Your task to perform on an android device: View the shopping cart on costco.com. Search for dell xps on costco.com, select the first entry, add it to the cart, then select checkout. Image 0: 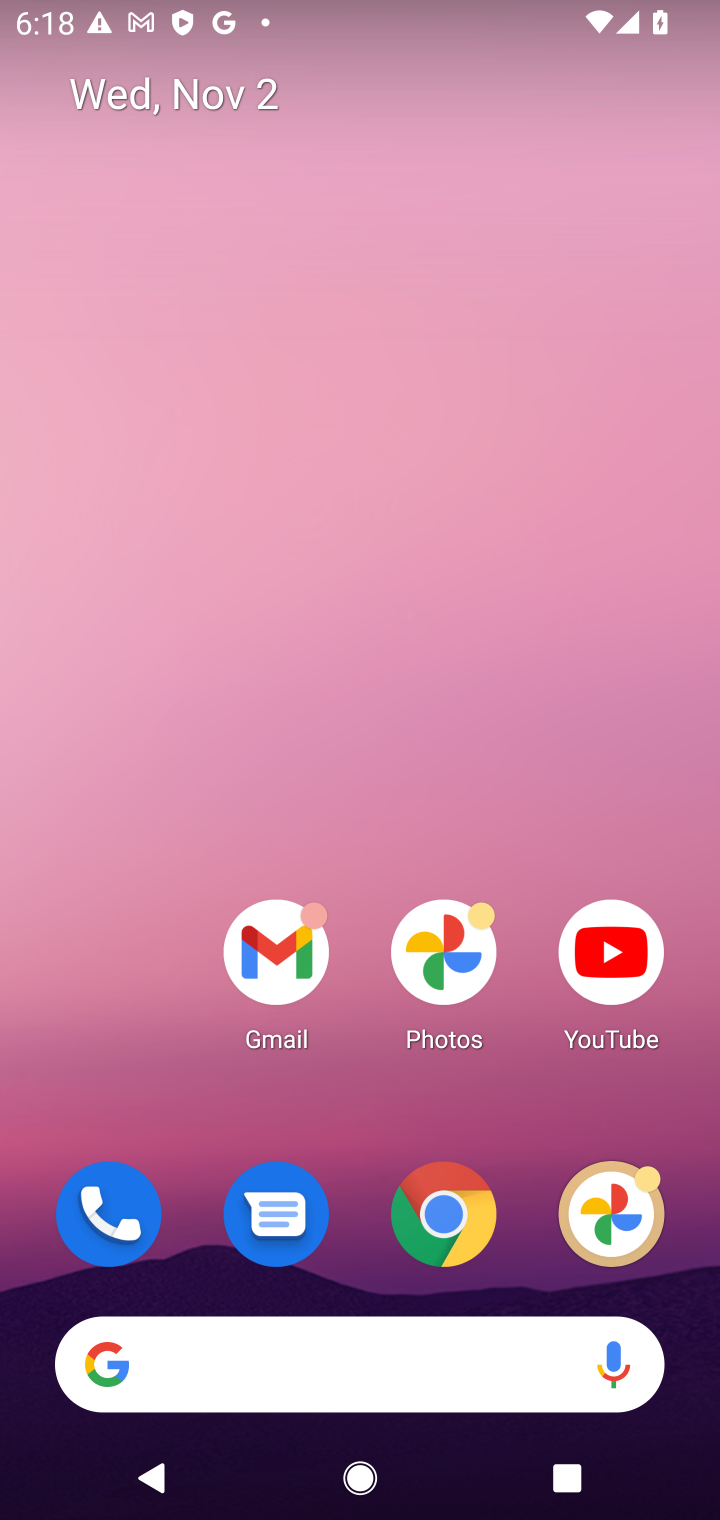
Step 0: click (452, 1214)
Your task to perform on an android device: View the shopping cart on costco.com. Search for dell xps on costco.com, select the first entry, add it to the cart, then select checkout. Image 1: 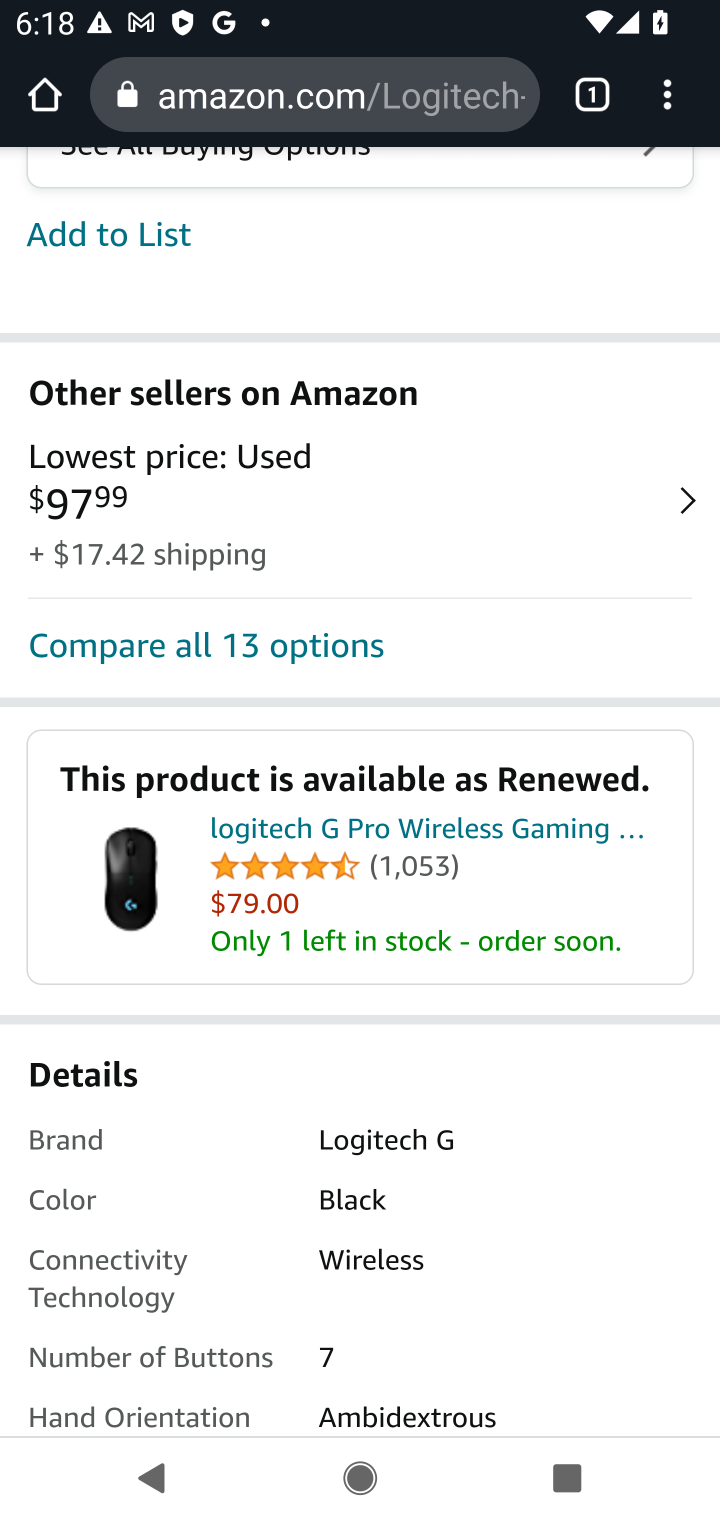
Step 1: click (430, 92)
Your task to perform on an android device: View the shopping cart on costco.com. Search for dell xps on costco.com, select the first entry, add it to the cart, then select checkout. Image 2: 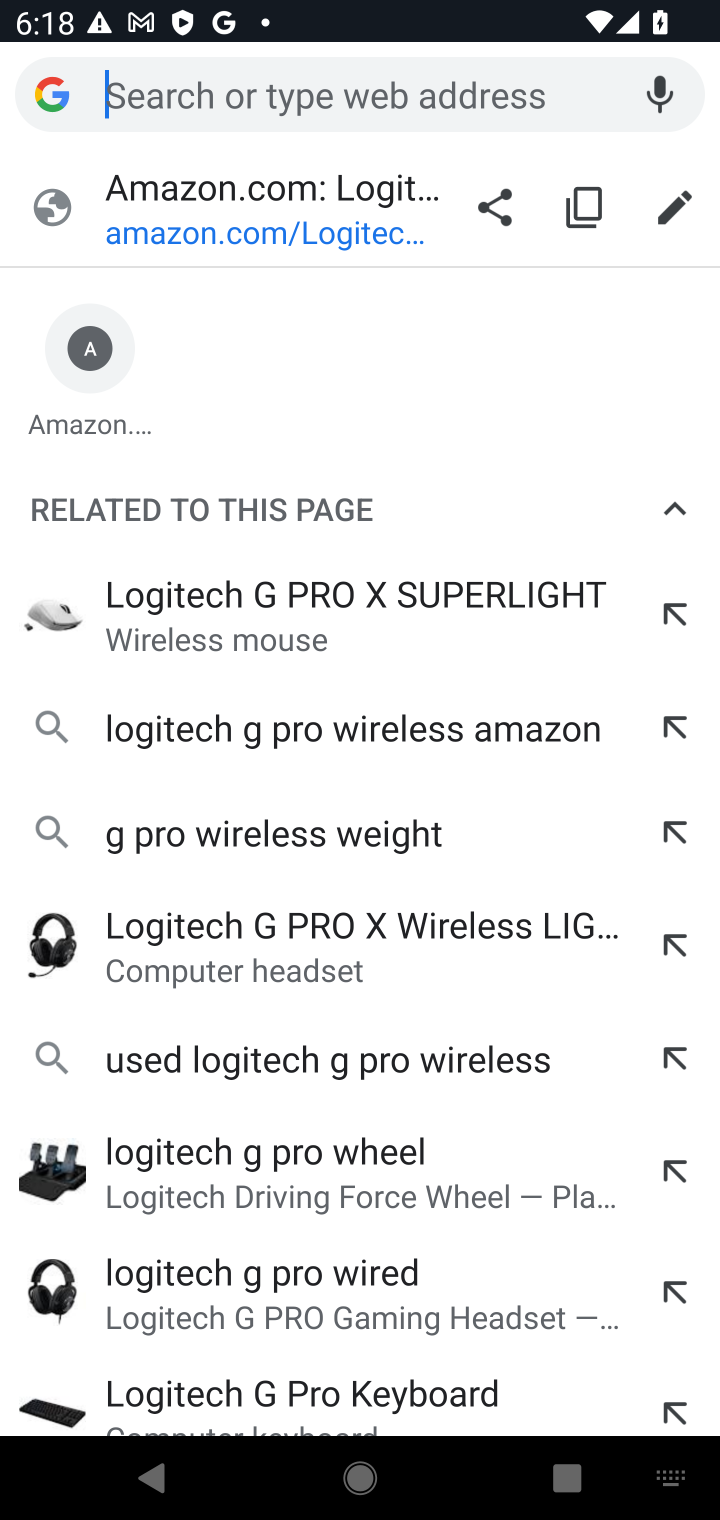
Step 2: type "costco.com"
Your task to perform on an android device: View the shopping cart on costco.com. Search for dell xps on costco.com, select the first entry, add it to the cart, then select checkout. Image 3: 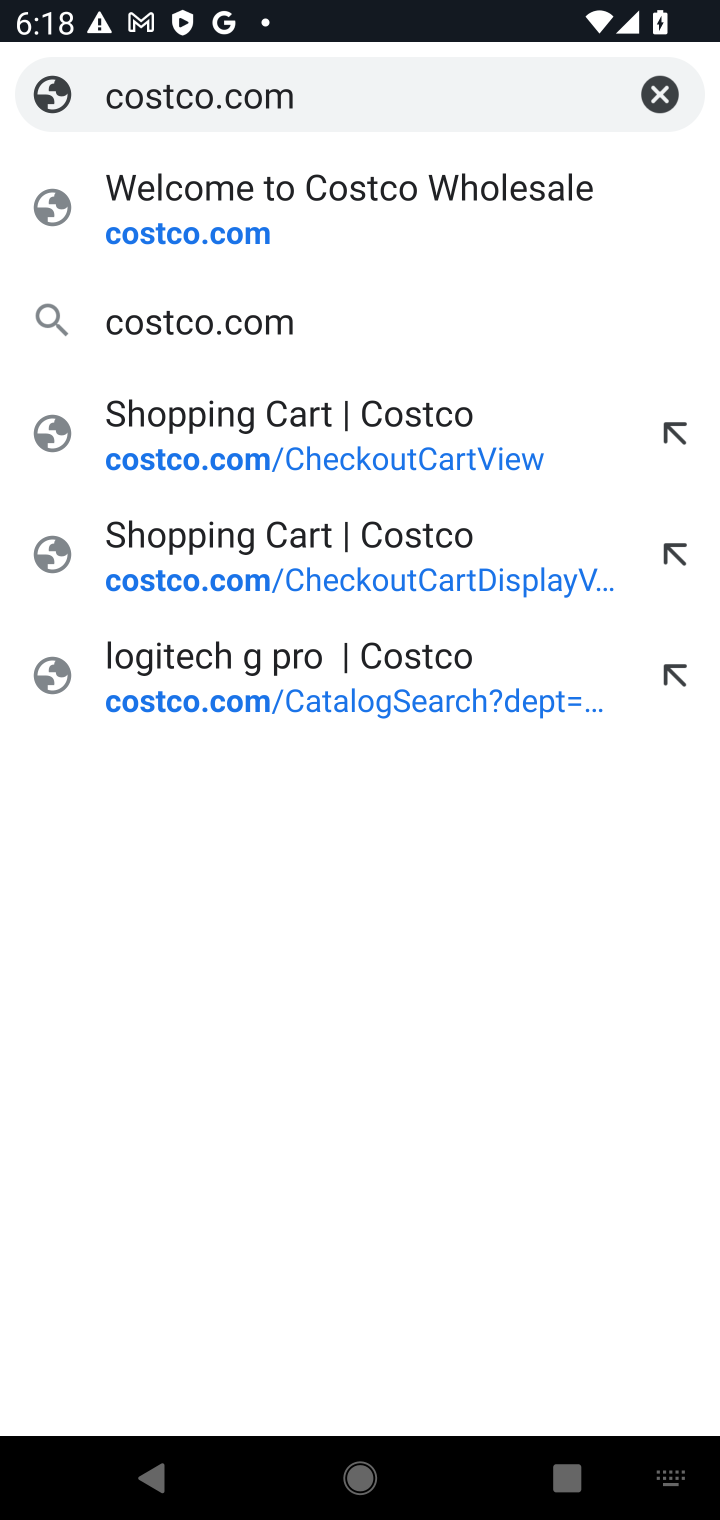
Step 3: click (259, 321)
Your task to perform on an android device: View the shopping cart on costco.com. Search for dell xps on costco.com, select the first entry, add it to the cart, then select checkout. Image 4: 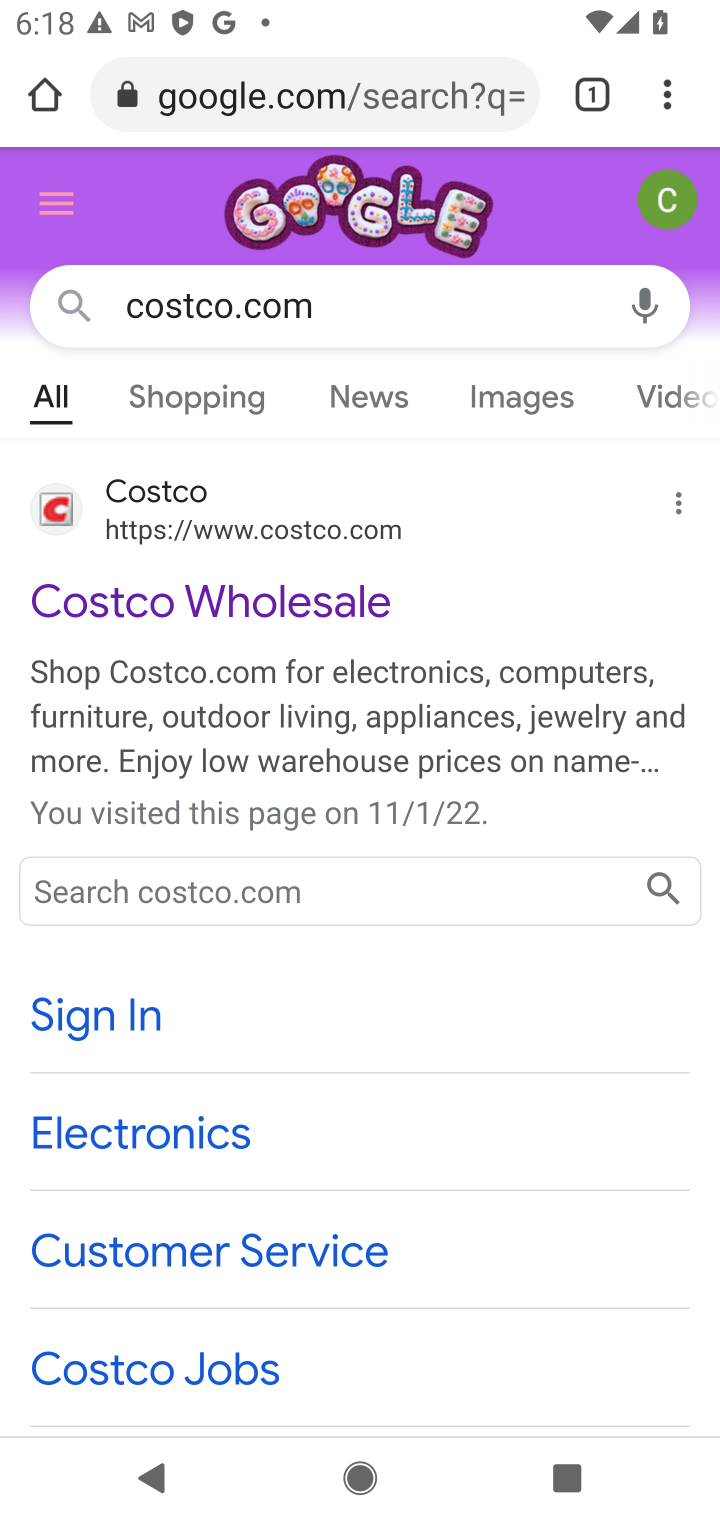
Step 4: click (321, 599)
Your task to perform on an android device: View the shopping cart on costco.com. Search for dell xps on costco.com, select the first entry, add it to the cart, then select checkout. Image 5: 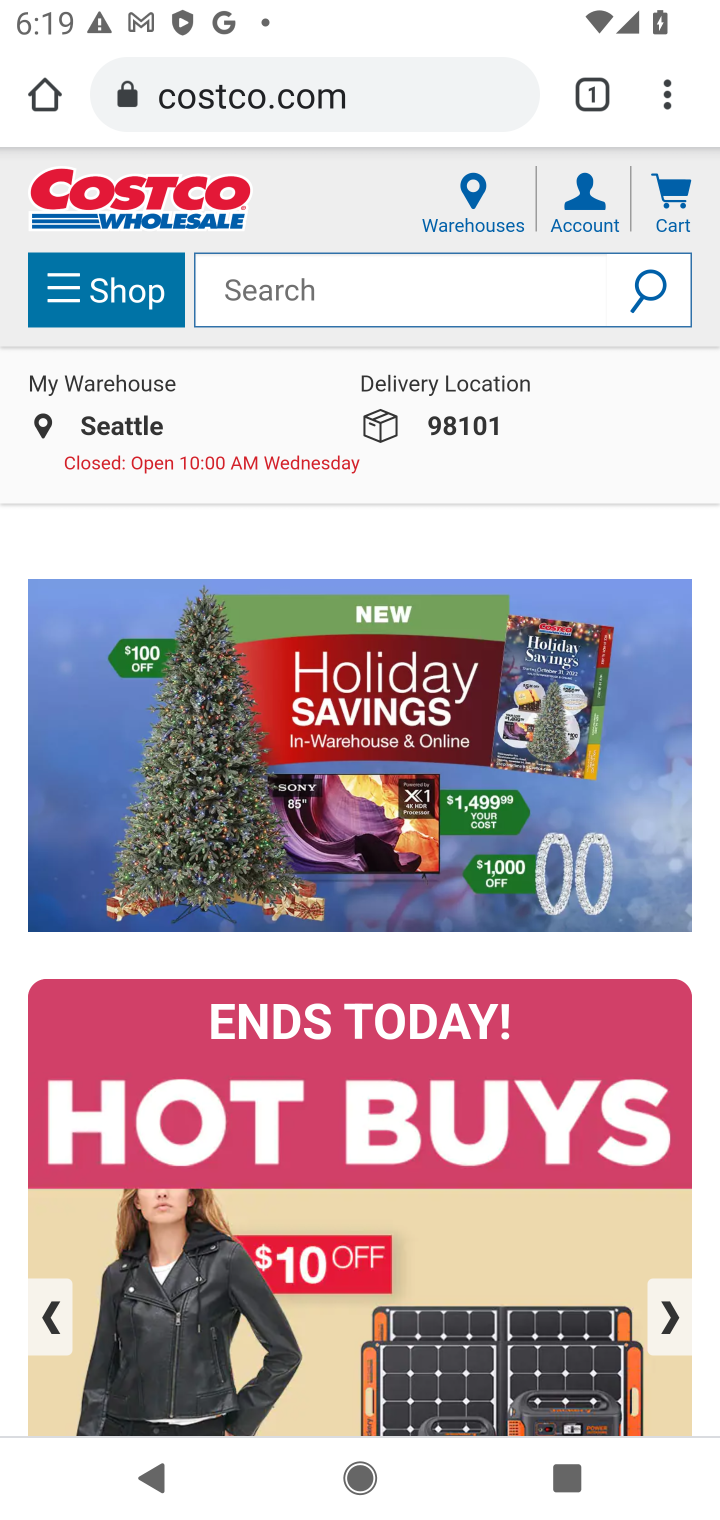
Step 5: click (674, 185)
Your task to perform on an android device: View the shopping cart on costco.com. Search for dell xps on costco.com, select the first entry, add it to the cart, then select checkout. Image 6: 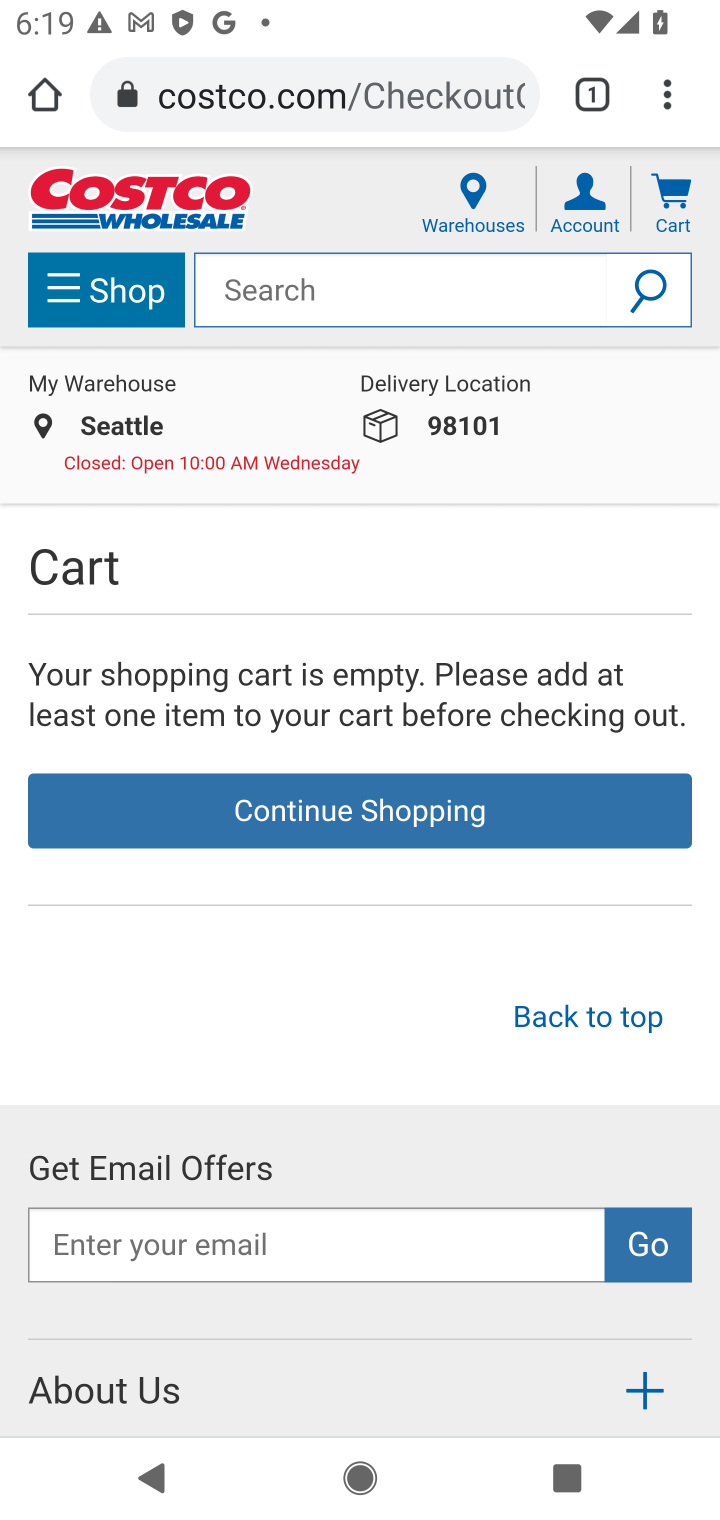
Step 6: click (476, 300)
Your task to perform on an android device: View the shopping cart on costco.com. Search for dell xps on costco.com, select the first entry, add it to the cart, then select checkout. Image 7: 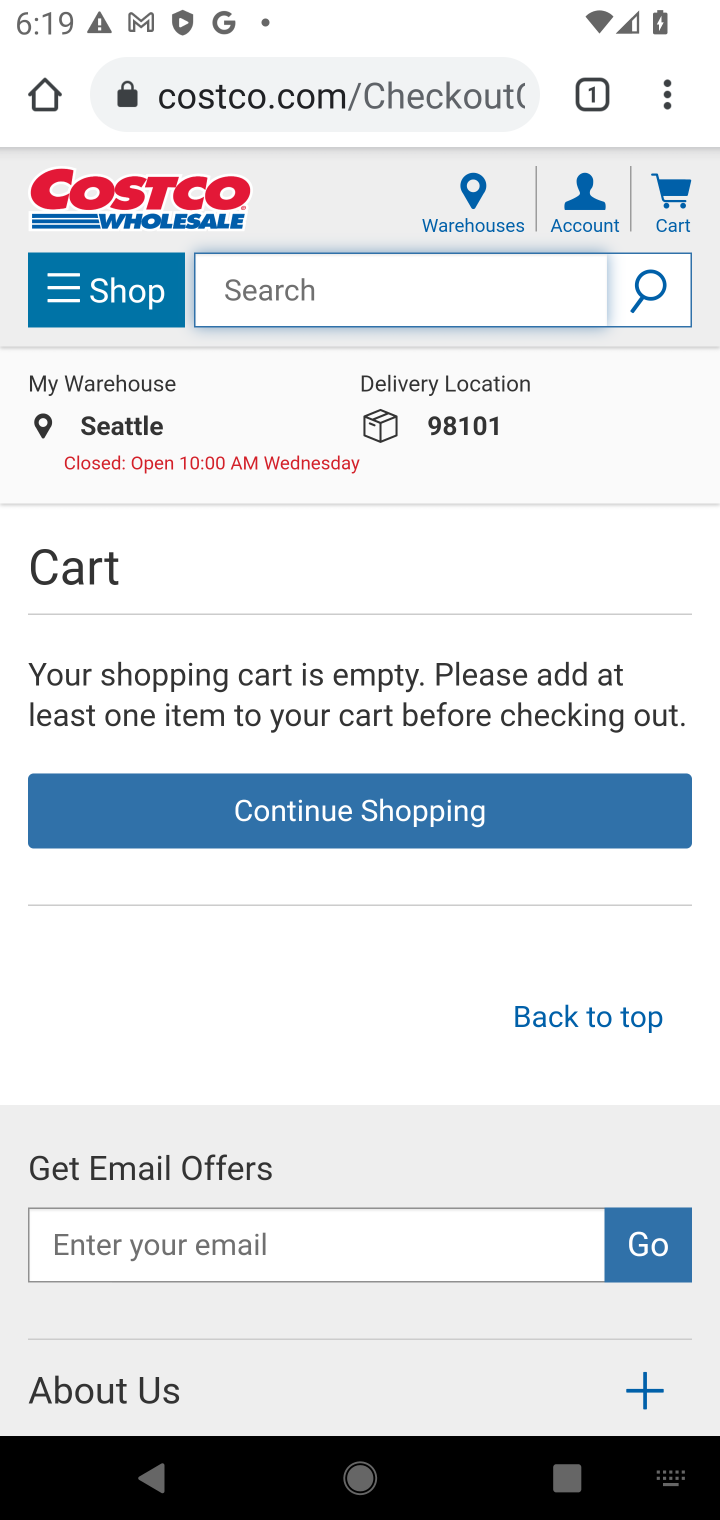
Step 7: type "dell xps"
Your task to perform on an android device: View the shopping cart on costco.com. Search for dell xps on costco.com, select the first entry, add it to the cart, then select checkout. Image 8: 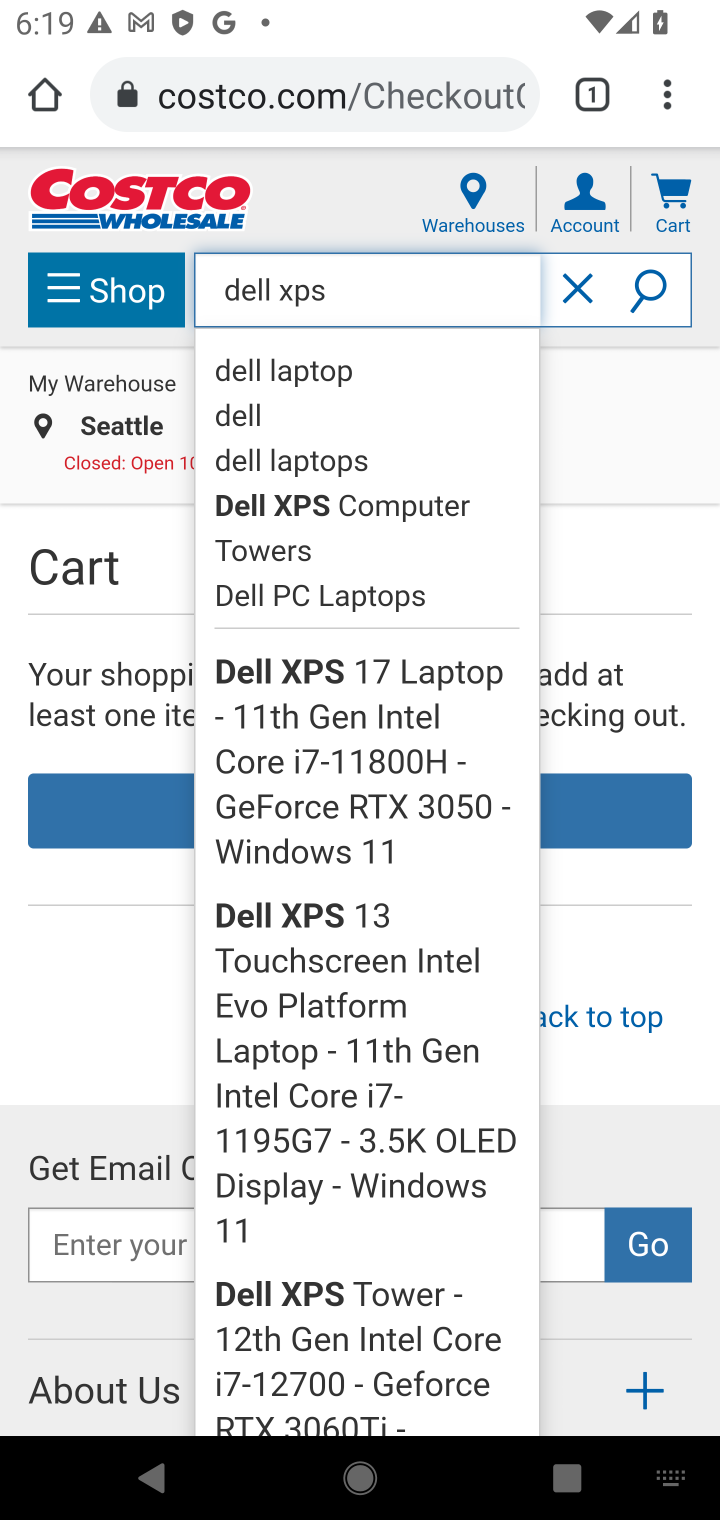
Step 8: click (649, 281)
Your task to perform on an android device: View the shopping cart on costco.com. Search for dell xps on costco.com, select the first entry, add it to the cart, then select checkout. Image 9: 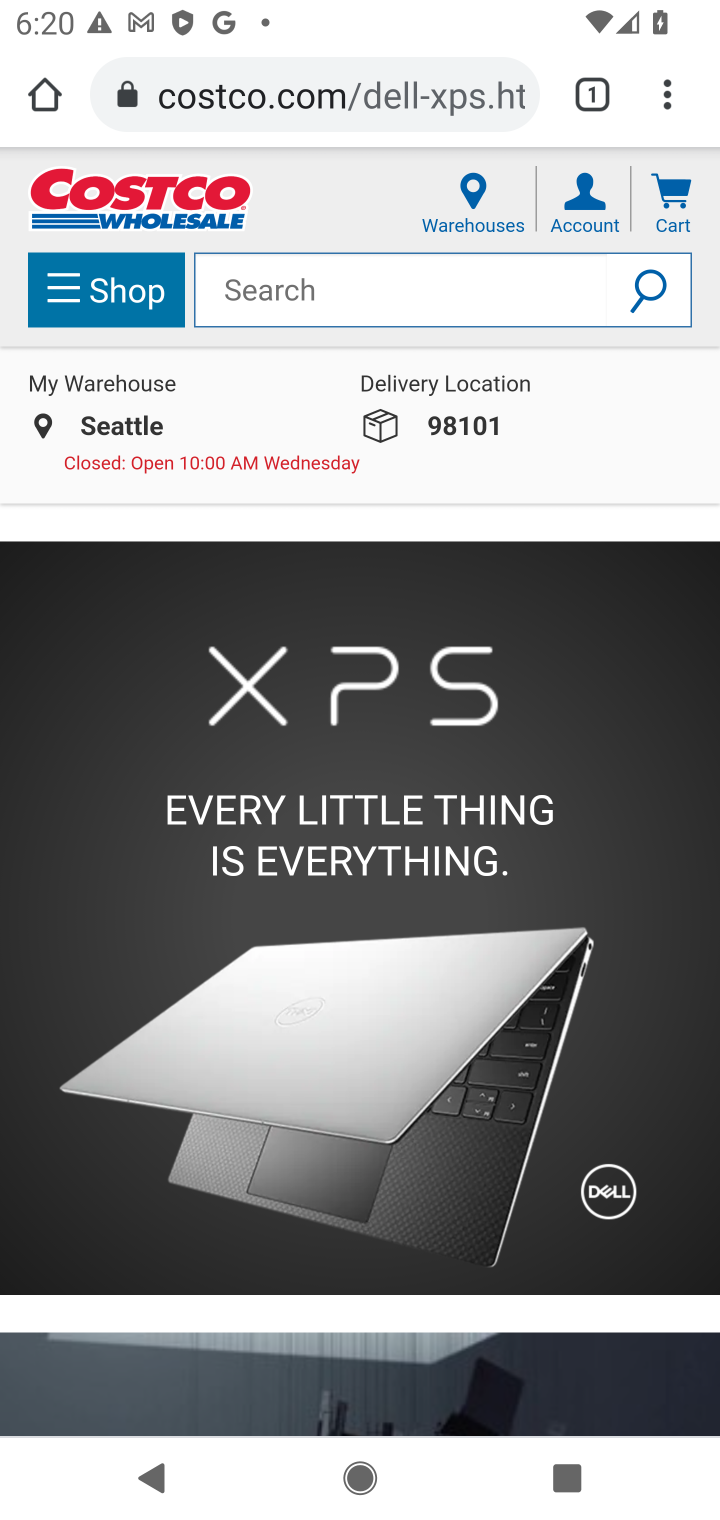
Step 9: drag from (591, 888) to (689, 313)
Your task to perform on an android device: View the shopping cart on costco.com. Search for dell xps on costco.com, select the first entry, add it to the cart, then select checkout. Image 10: 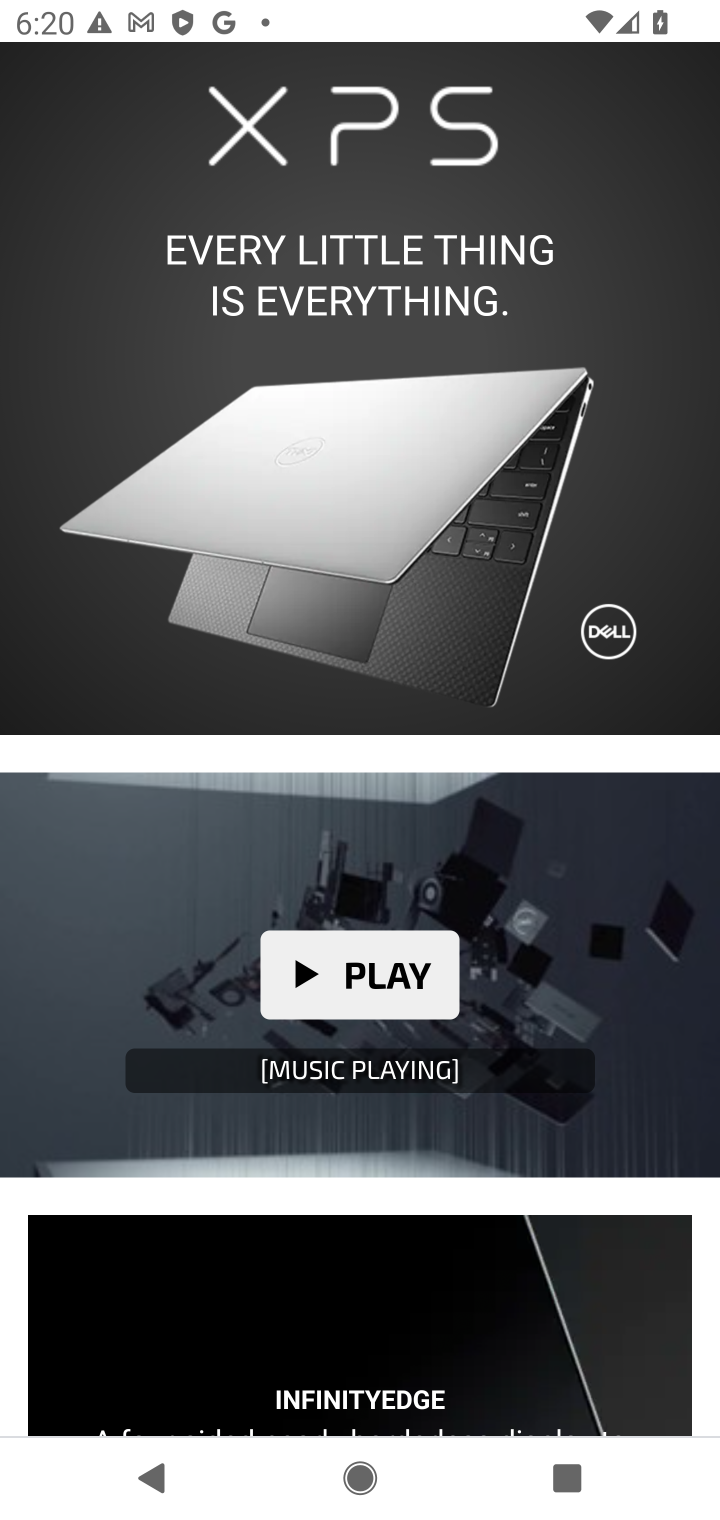
Step 10: drag from (363, 924) to (415, 175)
Your task to perform on an android device: View the shopping cart on costco.com. Search for dell xps on costco.com, select the first entry, add it to the cart, then select checkout. Image 11: 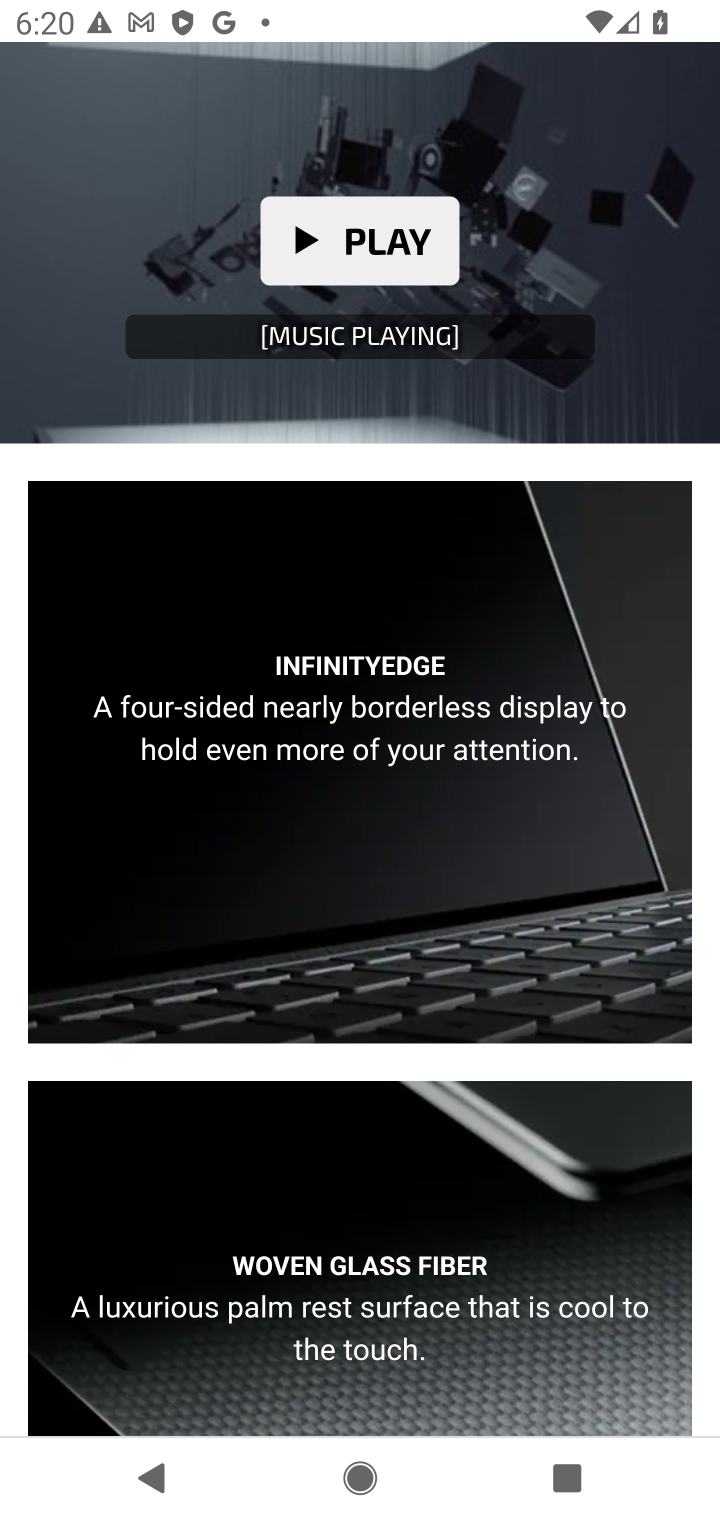
Step 11: drag from (404, 1025) to (398, 167)
Your task to perform on an android device: View the shopping cart on costco.com. Search for dell xps on costco.com, select the first entry, add it to the cart, then select checkout. Image 12: 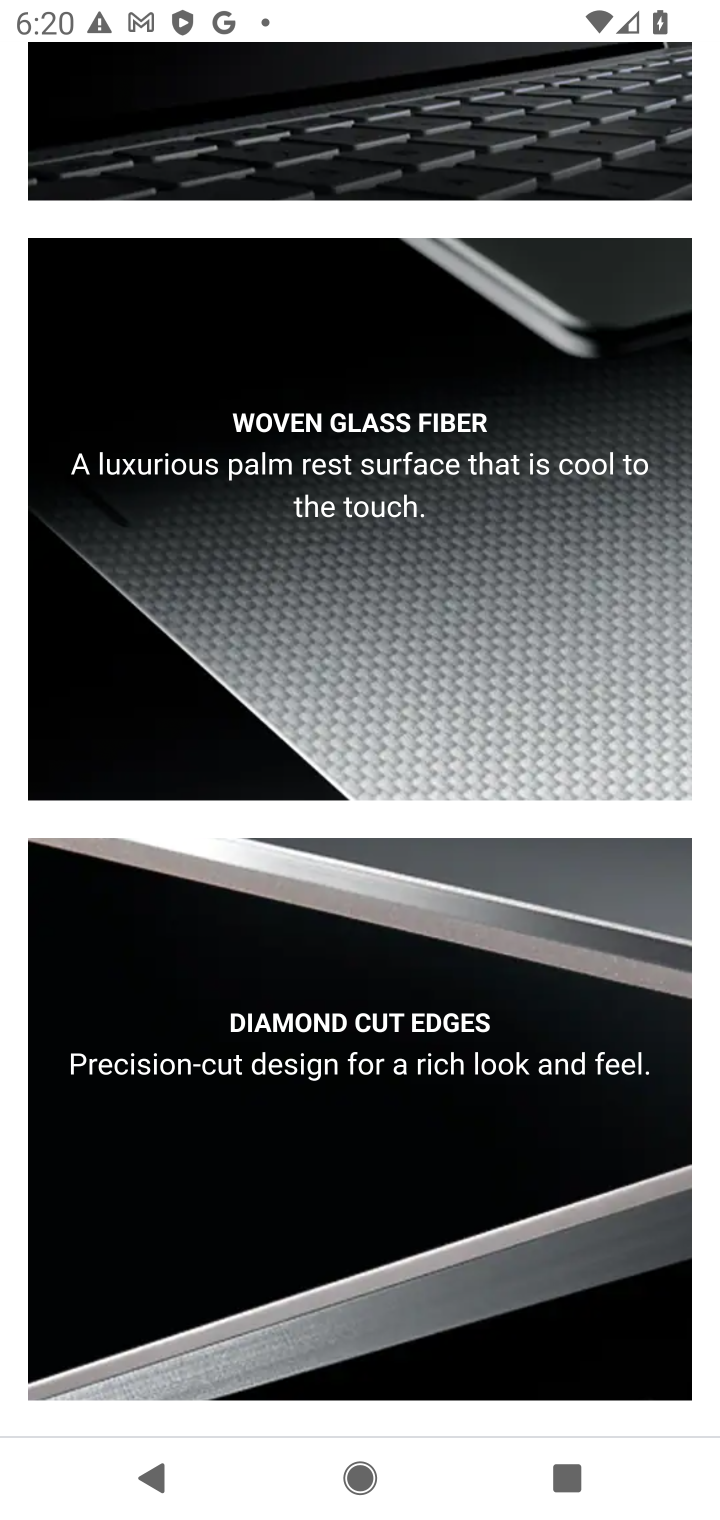
Step 12: drag from (462, 1285) to (522, 409)
Your task to perform on an android device: View the shopping cart on costco.com. Search for dell xps on costco.com, select the first entry, add it to the cart, then select checkout. Image 13: 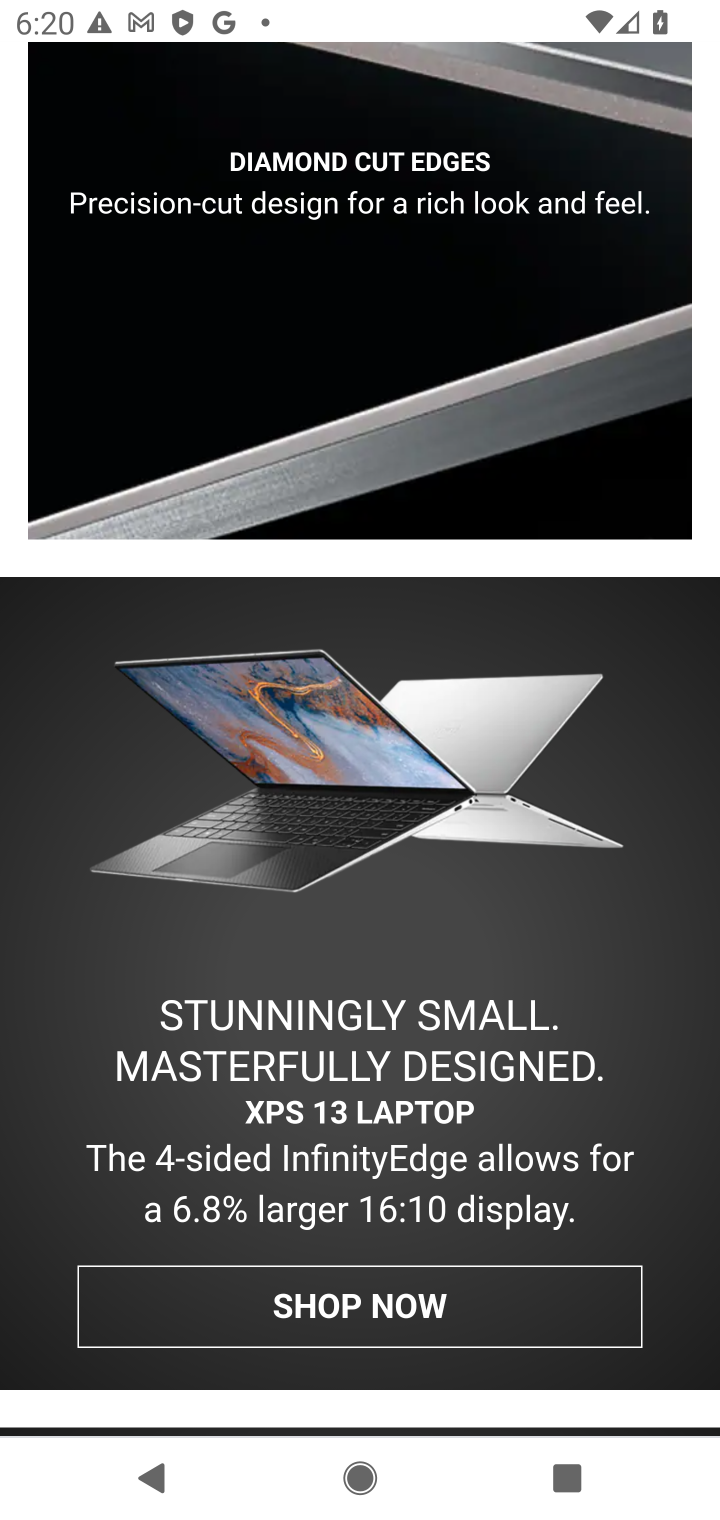
Step 13: drag from (432, 879) to (541, 352)
Your task to perform on an android device: View the shopping cart on costco.com. Search for dell xps on costco.com, select the first entry, add it to the cart, then select checkout. Image 14: 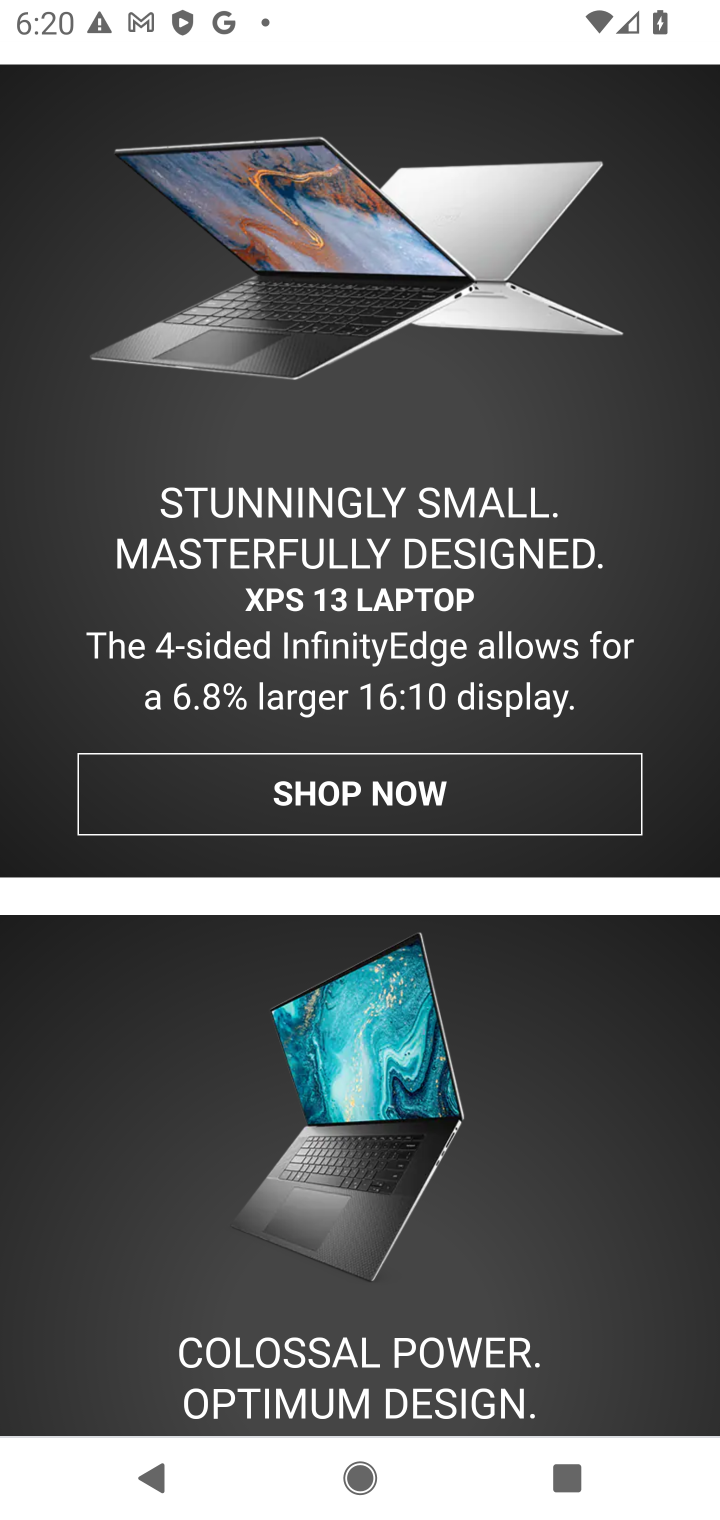
Step 14: drag from (486, 1234) to (591, 161)
Your task to perform on an android device: View the shopping cart on costco.com. Search for dell xps on costco.com, select the first entry, add it to the cart, then select checkout. Image 15: 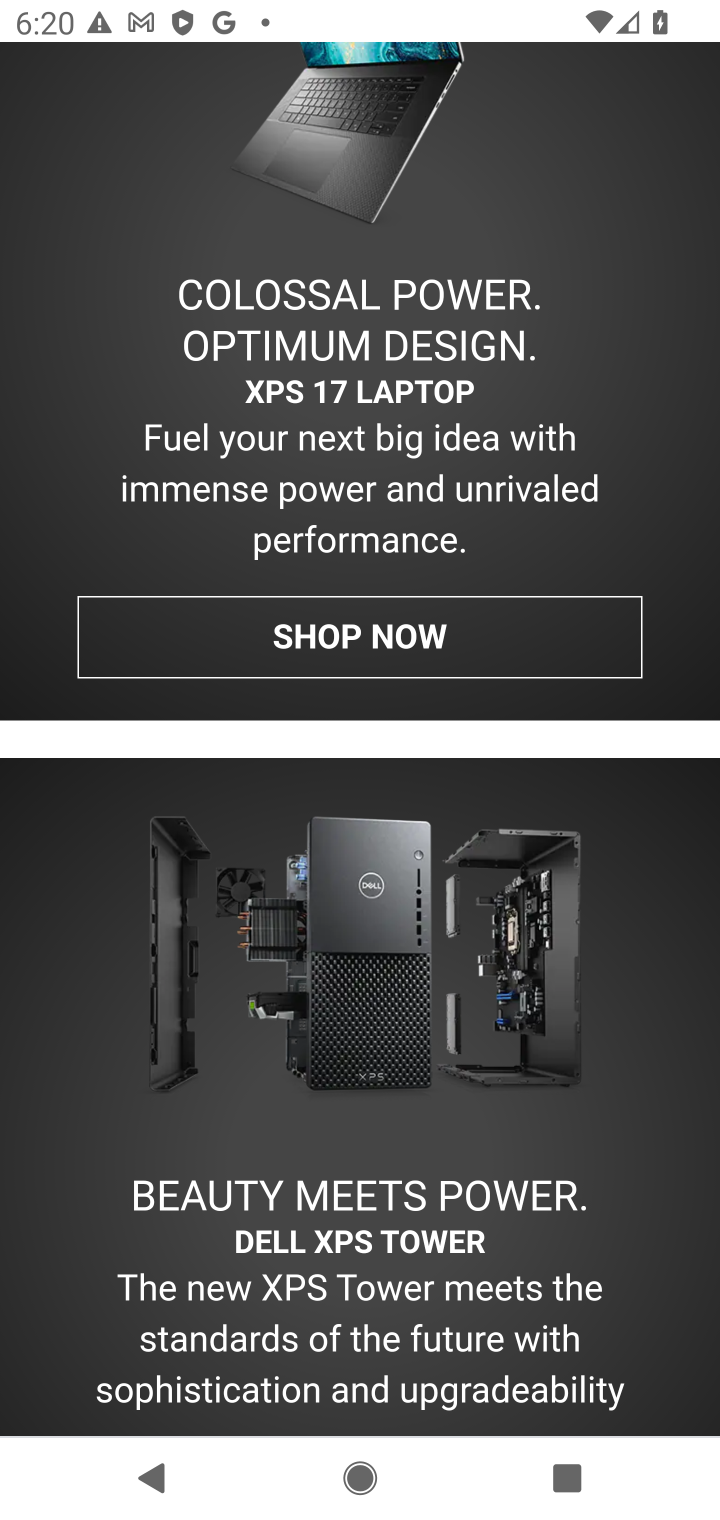
Step 15: drag from (384, 1348) to (536, 257)
Your task to perform on an android device: View the shopping cart on costco.com. Search for dell xps on costco.com, select the first entry, add it to the cart, then select checkout. Image 16: 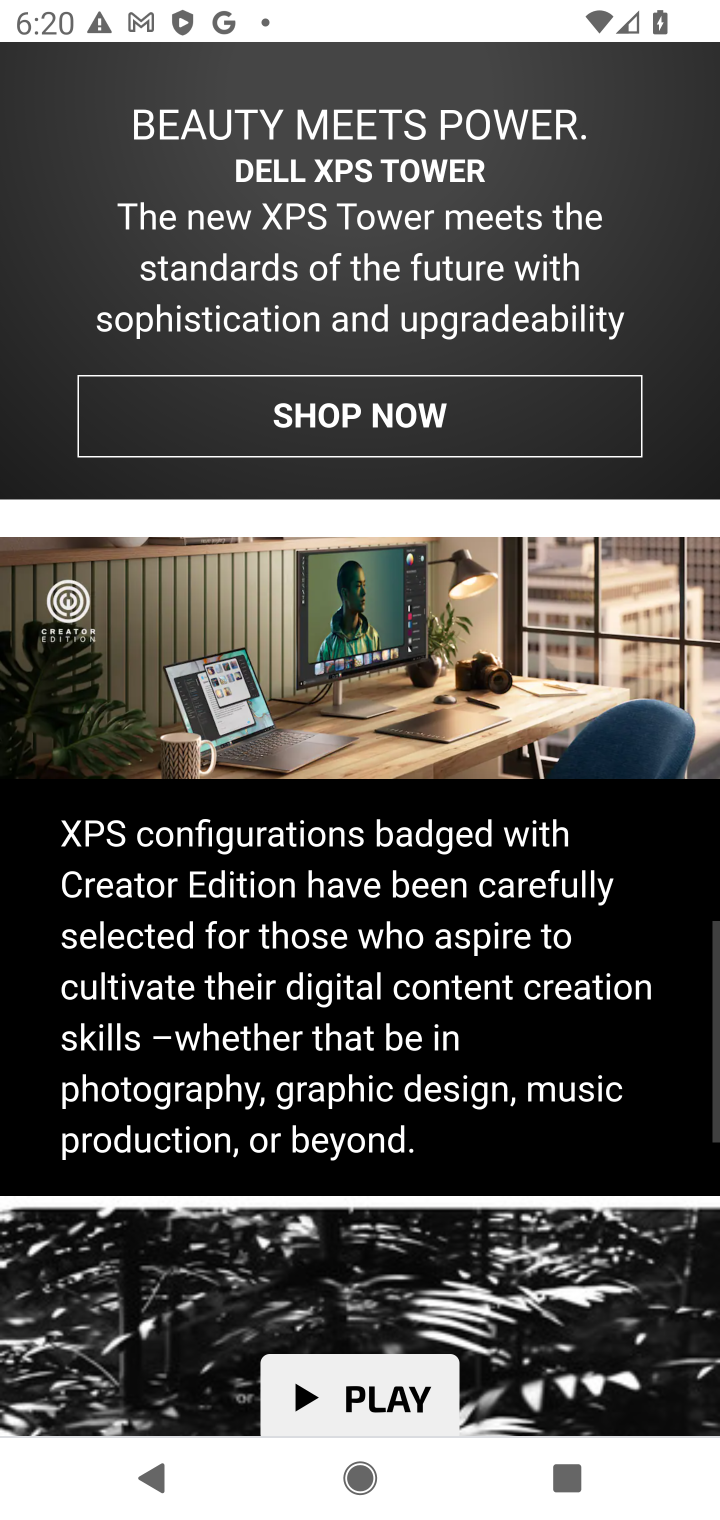
Step 16: drag from (396, 1113) to (535, 122)
Your task to perform on an android device: View the shopping cart on costco.com. Search for dell xps on costco.com, select the first entry, add it to the cart, then select checkout. Image 17: 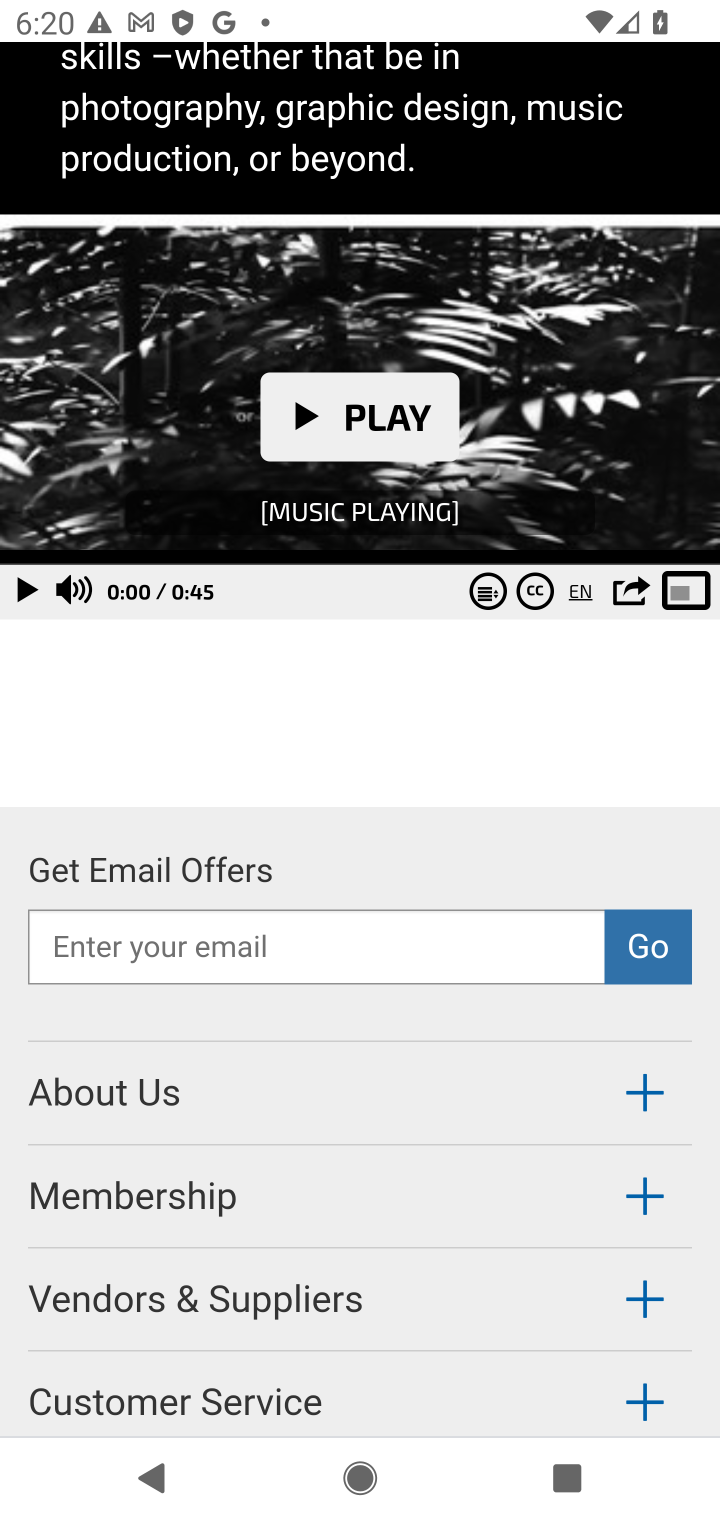
Step 17: drag from (543, 555) to (418, 1514)
Your task to perform on an android device: View the shopping cart on costco.com. Search for dell xps on costco.com, select the first entry, add it to the cart, then select checkout. Image 18: 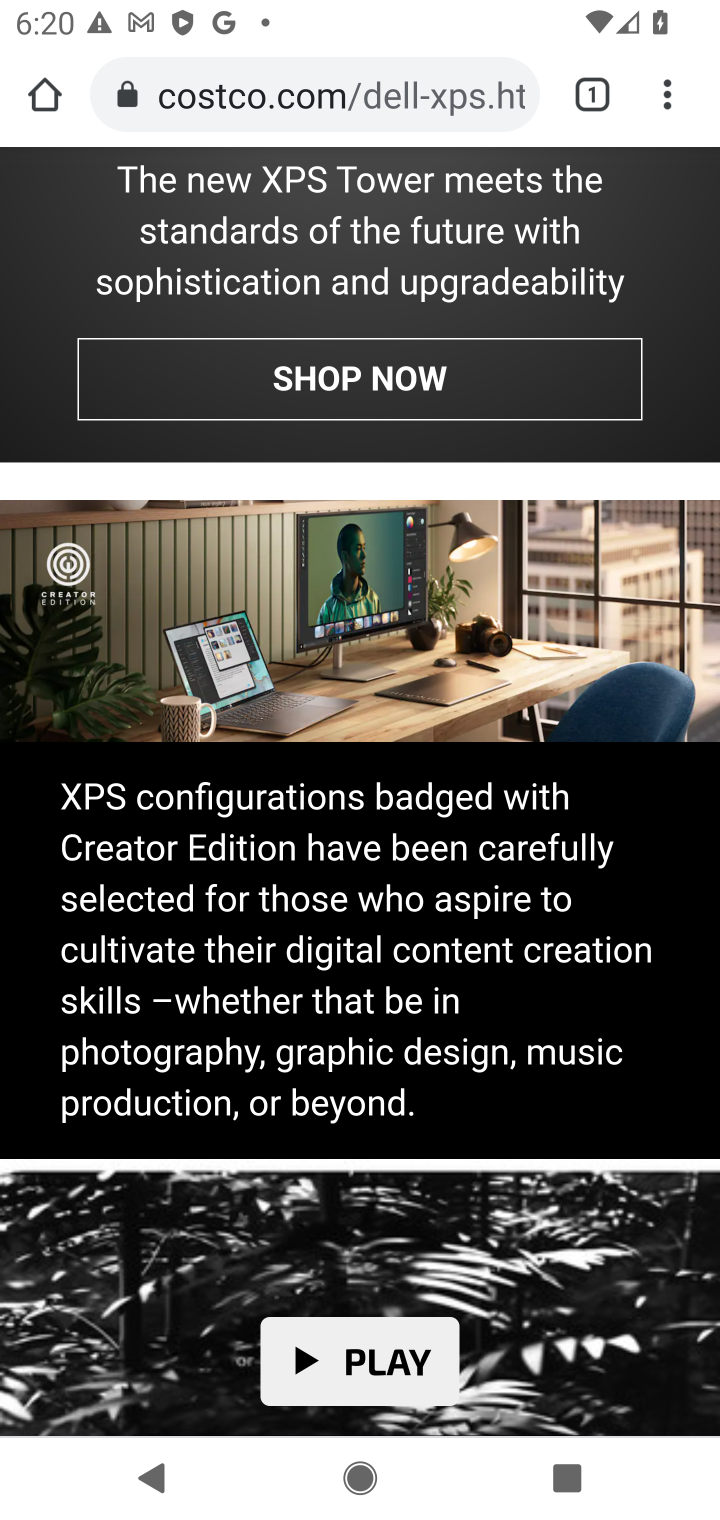
Step 18: drag from (357, 837) to (369, 1231)
Your task to perform on an android device: View the shopping cart on costco.com. Search for dell xps on costco.com, select the first entry, add it to the cart, then select checkout. Image 19: 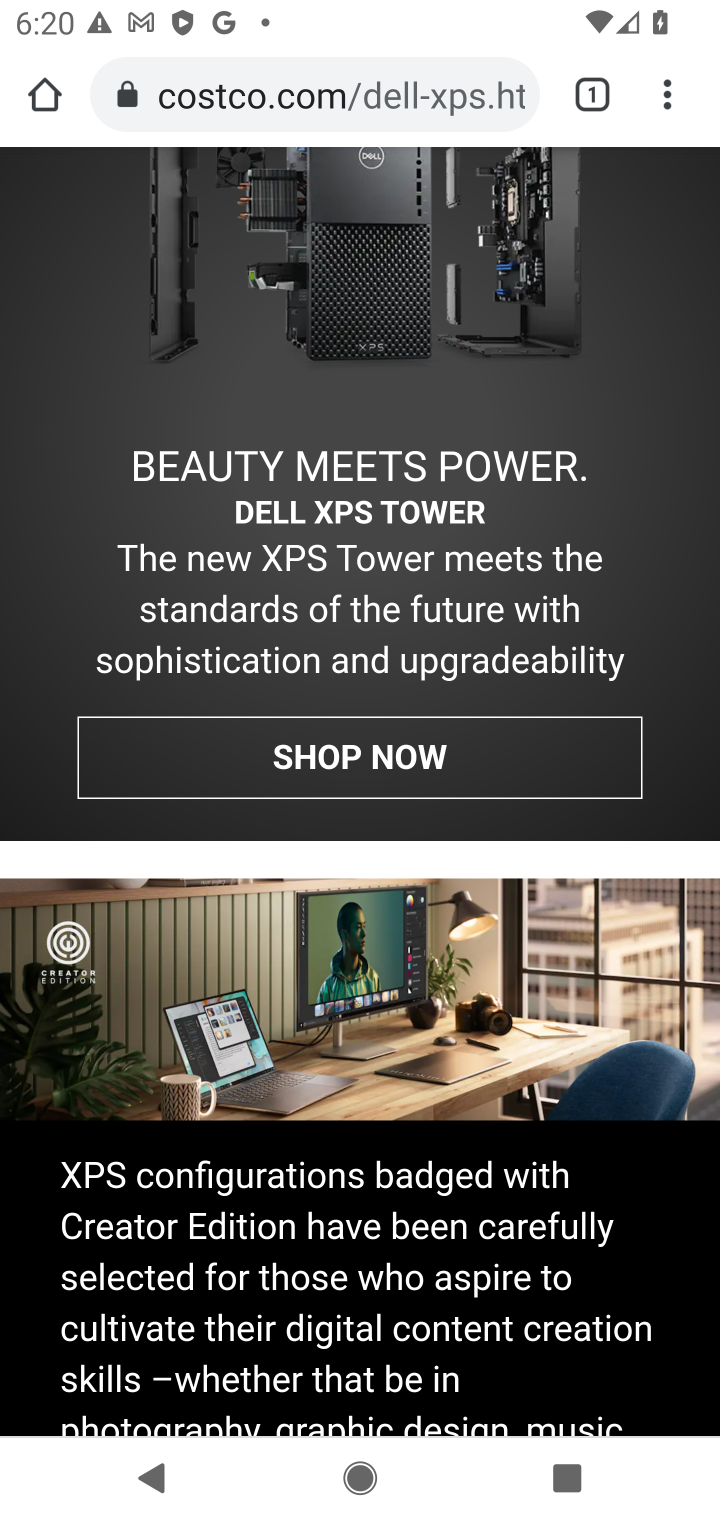
Step 19: click (403, 766)
Your task to perform on an android device: View the shopping cart on costco.com. Search for dell xps on costco.com, select the first entry, add it to the cart, then select checkout. Image 20: 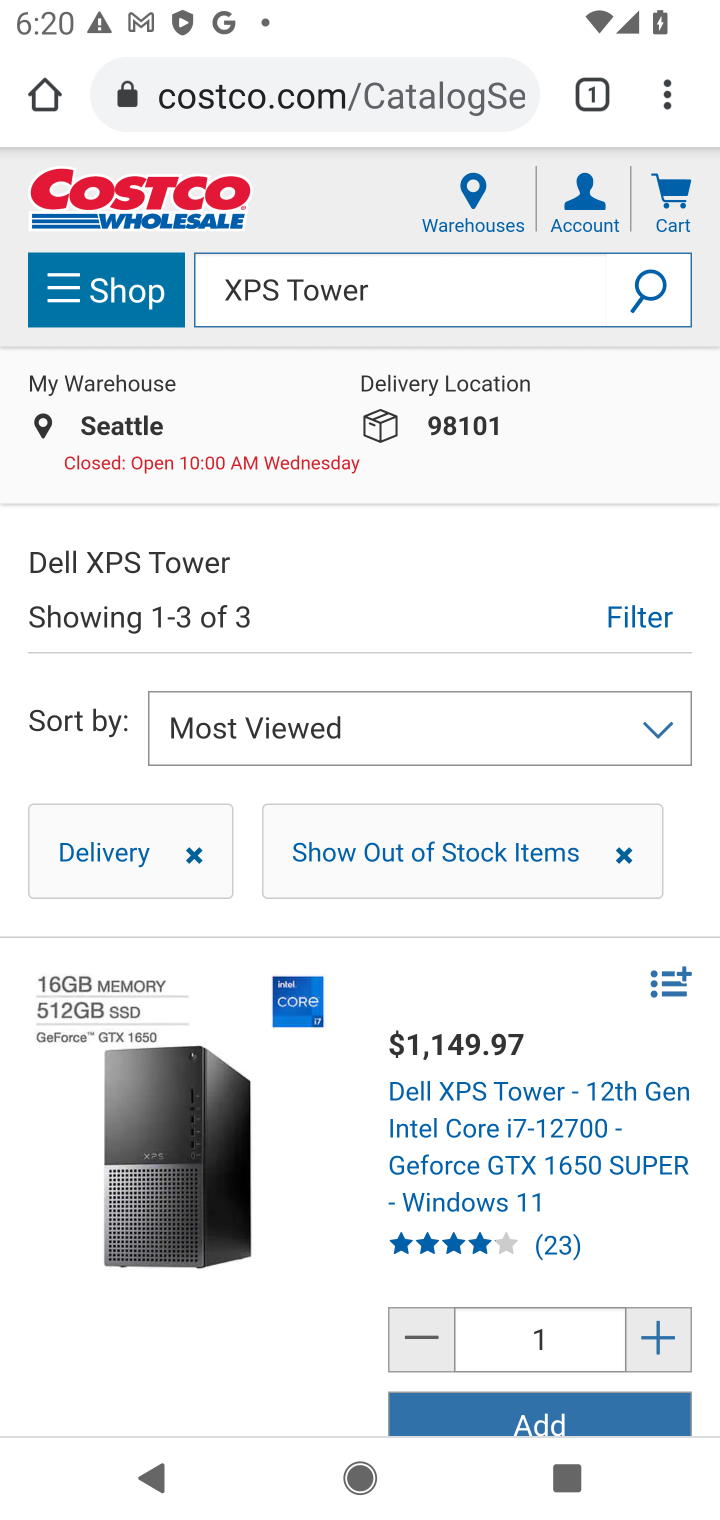
Step 20: drag from (593, 1179) to (551, 781)
Your task to perform on an android device: View the shopping cart on costco.com. Search for dell xps on costco.com, select the first entry, add it to the cart, then select checkout. Image 21: 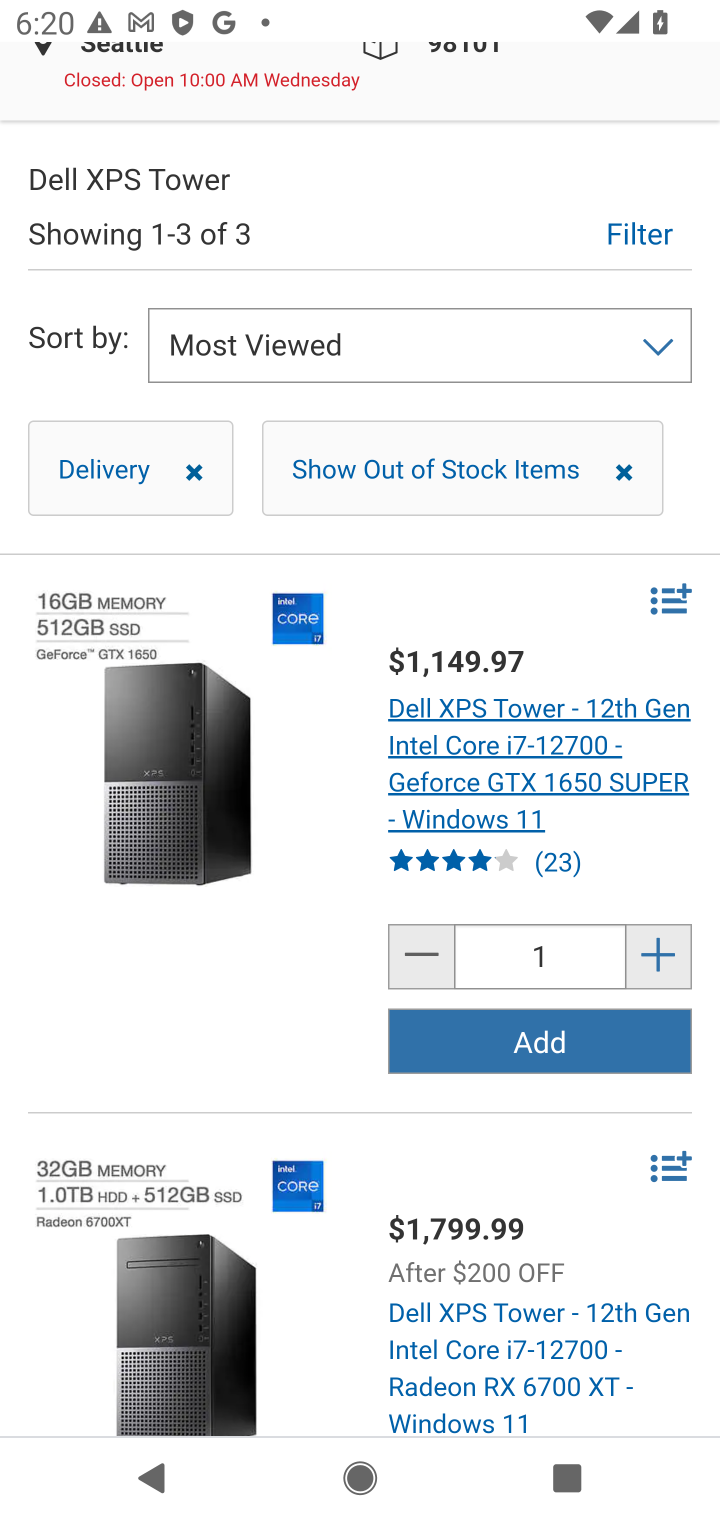
Step 21: click (537, 1038)
Your task to perform on an android device: View the shopping cart on costco.com. Search for dell xps on costco.com, select the first entry, add it to the cart, then select checkout. Image 22: 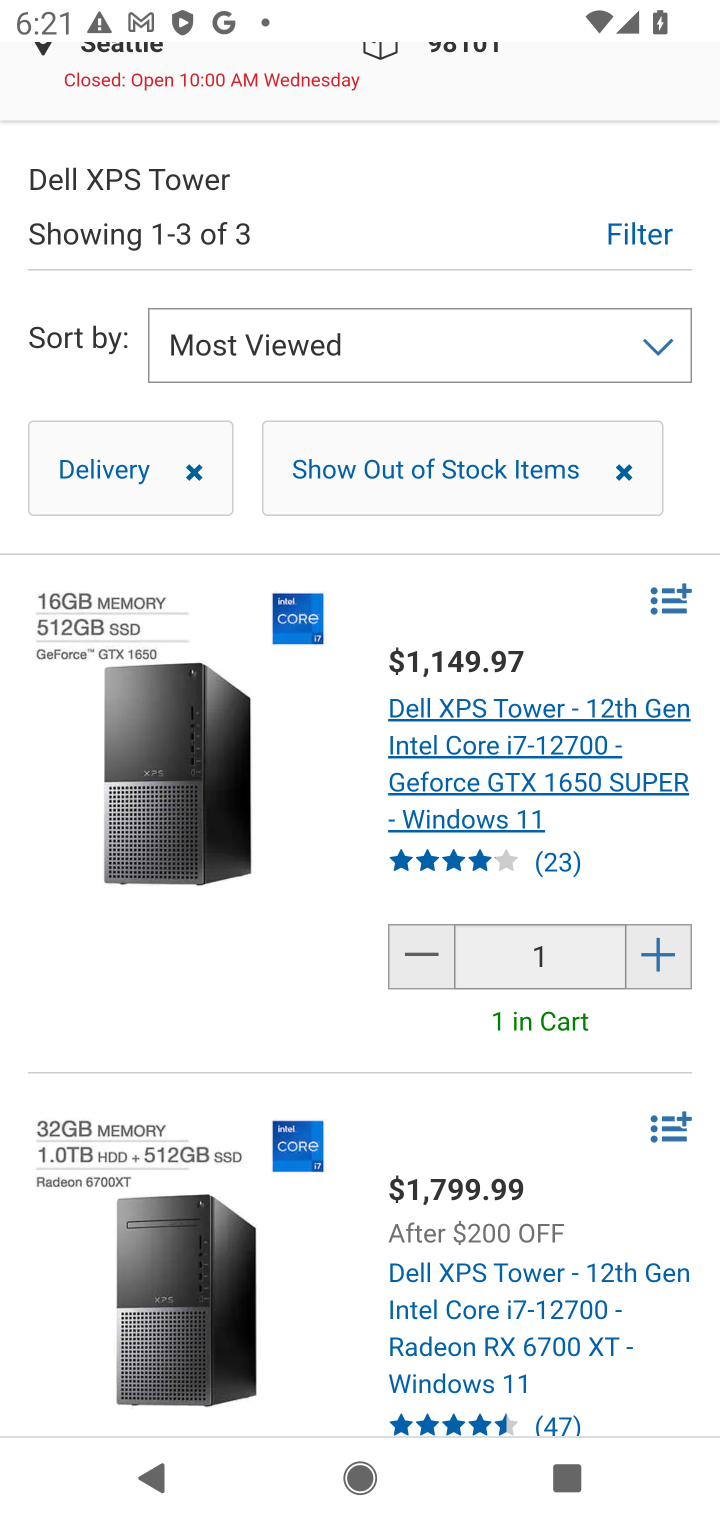
Step 22: drag from (538, 214) to (586, 861)
Your task to perform on an android device: View the shopping cart on costco.com. Search for dell xps on costco.com, select the first entry, add it to the cart, then select checkout. Image 23: 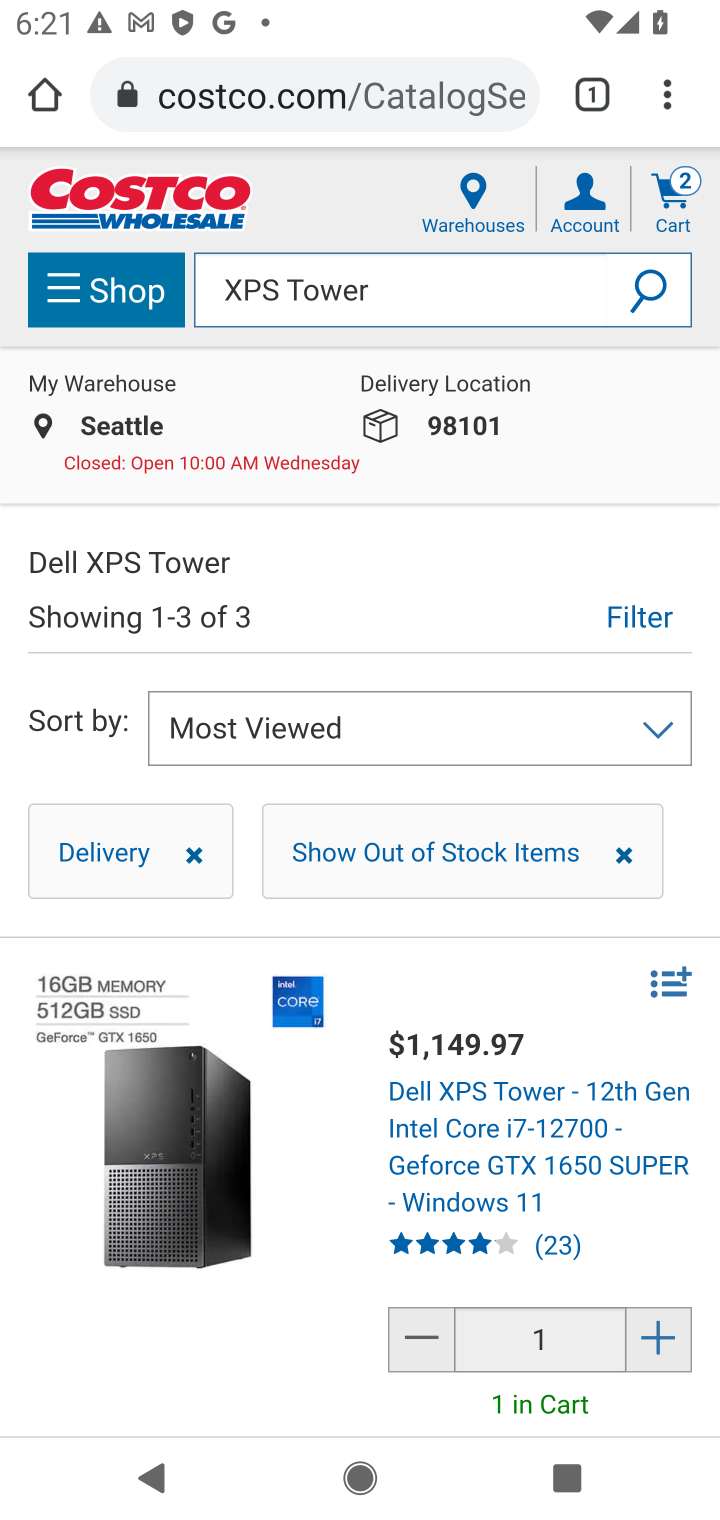
Step 23: click (682, 193)
Your task to perform on an android device: View the shopping cart on costco.com. Search for dell xps on costco.com, select the first entry, add it to the cart, then select checkout. Image 24: 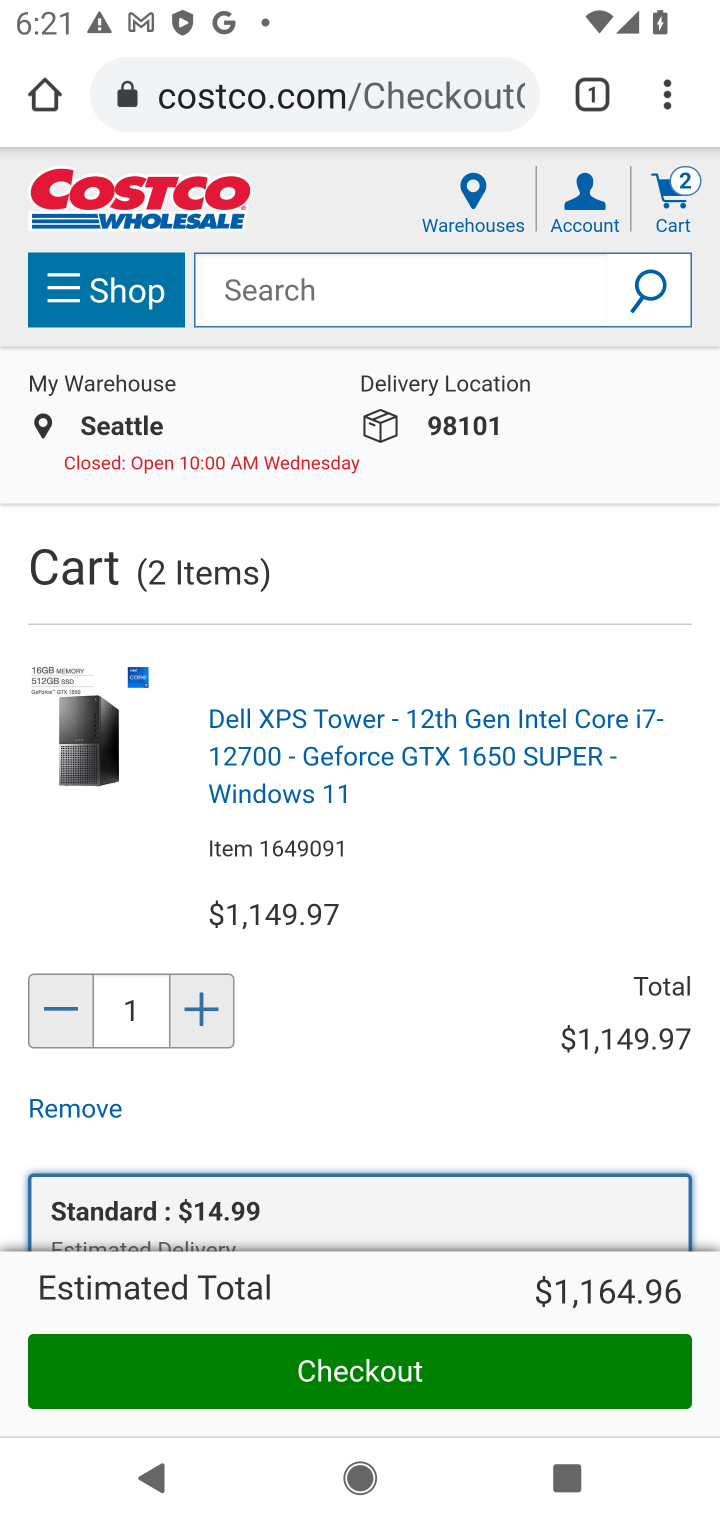
Step 24: drag from (485, 1128) to (503, 657)
Your task to perform on an android device: View the shopping cart on costco.com. Search for dell xps on costco.com, select the first entry, add it to the cart, then select checkout. Image 25: 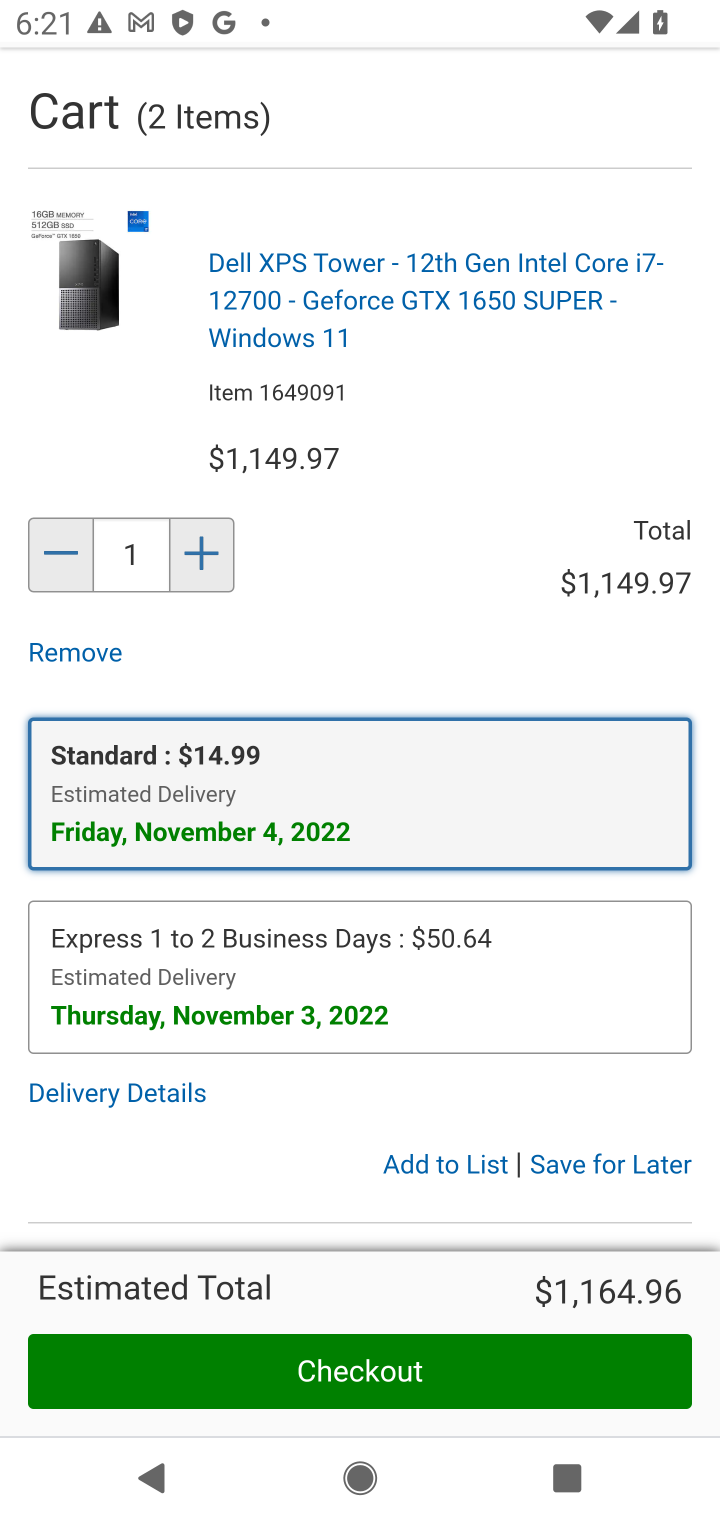
Step 25: click (417, 1372)
Your task to perform on an android device: View the shopping cart on costco.com. Search for dell xps on costco.com, select the first entry, add it to the cart, then select checkout. Image 26: 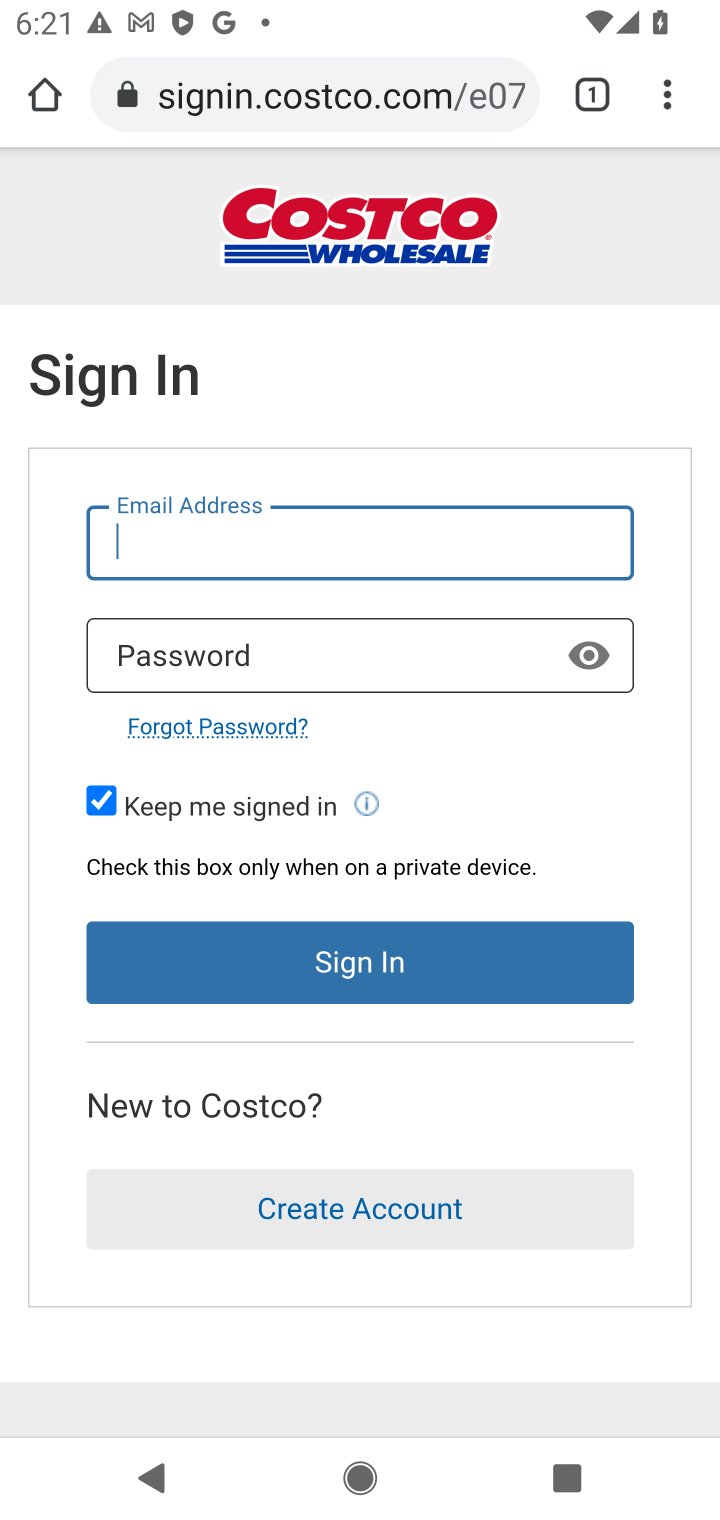
Step 26: task complete